Your task to perform on an android device: change the clock display to analog Image 0: 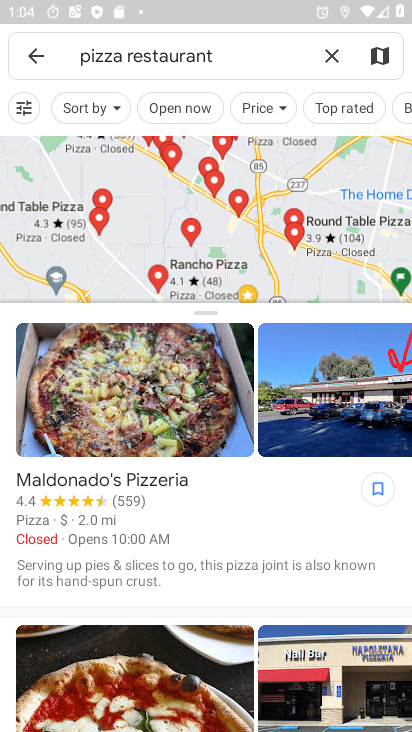
Step 0: press home button
Your task to perform on an android device: change the clock display to analog Image 1: 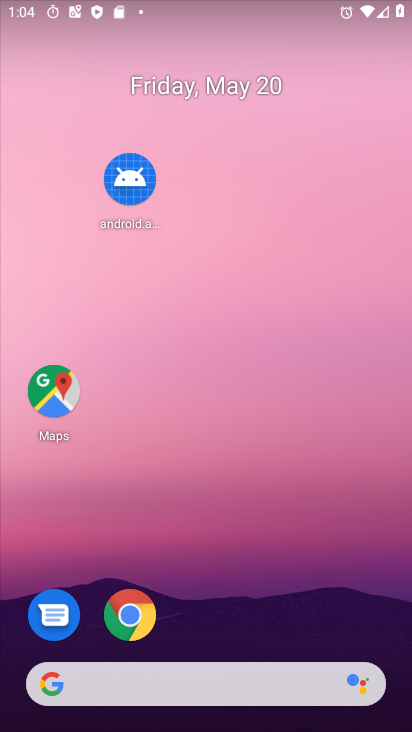
Step 1: drag from (289, 601) to (410, 351)
Your task to perform on an android device: change the clock display to analog Image 2: 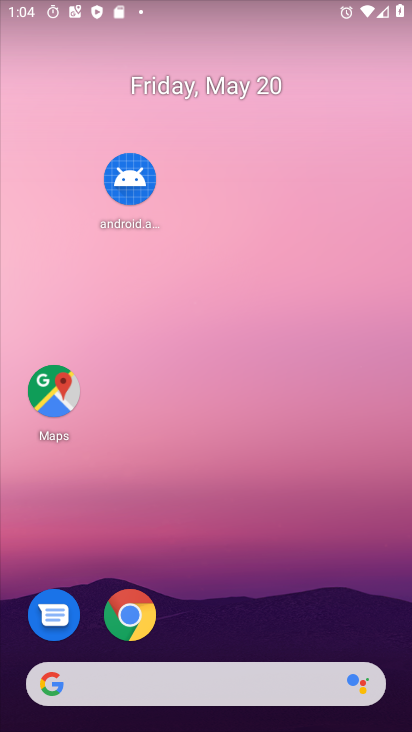
Step 2: drag from (384, 634) to (295, 0)
Your task to perform on an android device: change the clock display to analog Image 3: 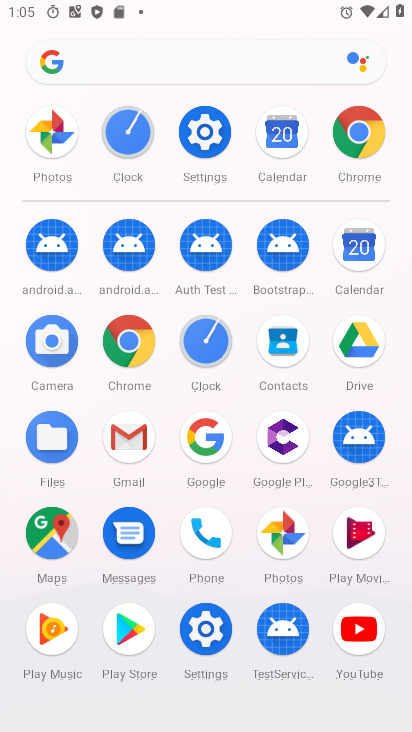
Step 3: click (108, 149)
Your task to perform on an android device: change the clock display to analog Image 4: 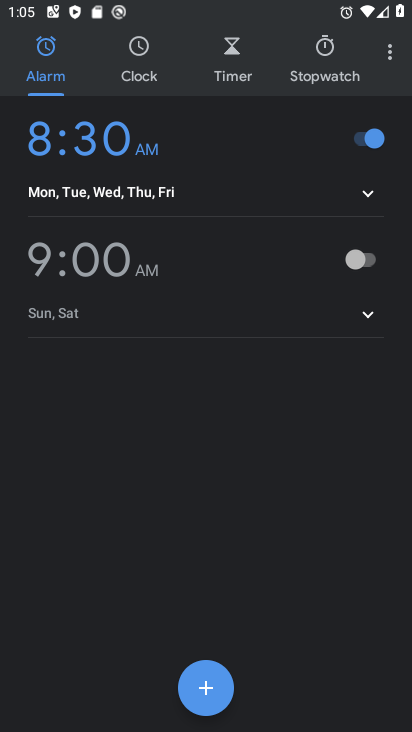
Step 4: click (392, 62)
Your task to perform on an android device: change the clock display to analog Image 5: 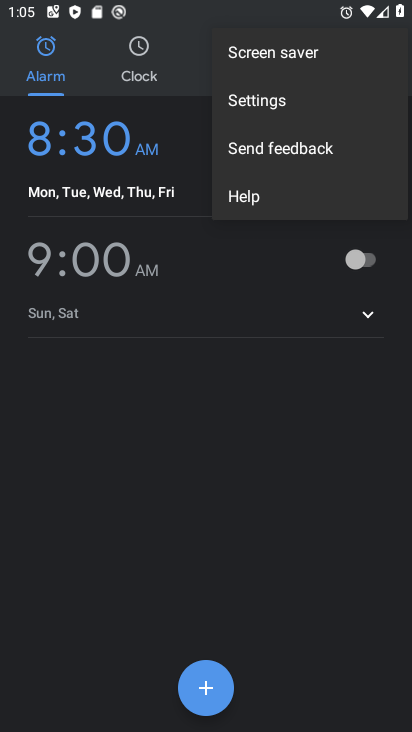
Step 5: click (300, 109)
Your task to perform on an android device: change the clock display to analog Image 6: 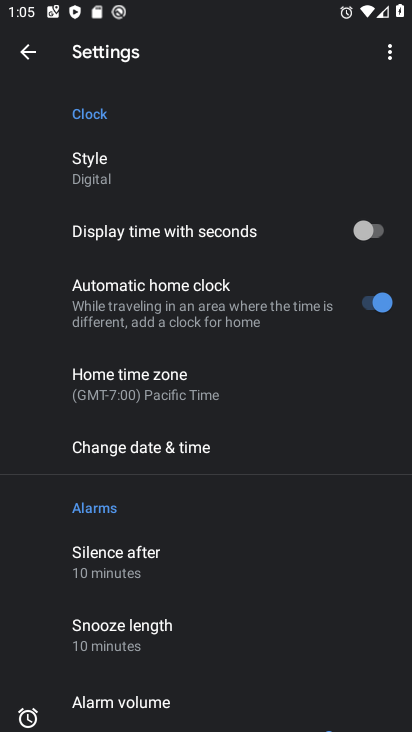
Step 6: click (255, 160)
Your task to perform on an android device: change the clock display to analog Image 7: 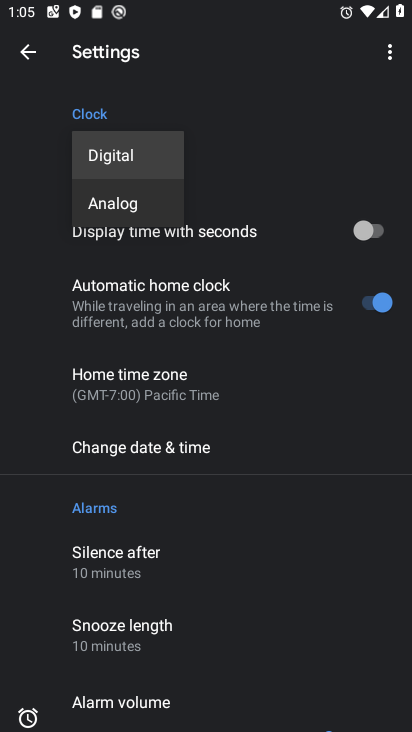
Step 7: click (139, 206)
Your task to perform on an android device: change the clock display to analog Image 8: 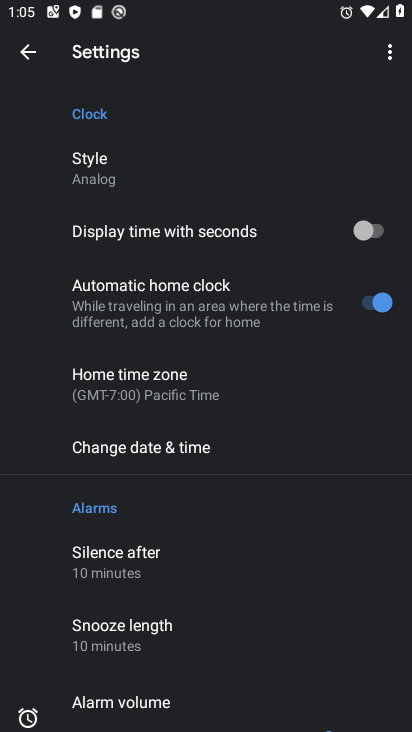
Step 8: task complete